Your task to perform on an android device: change the clock display to show seconds Image 0: 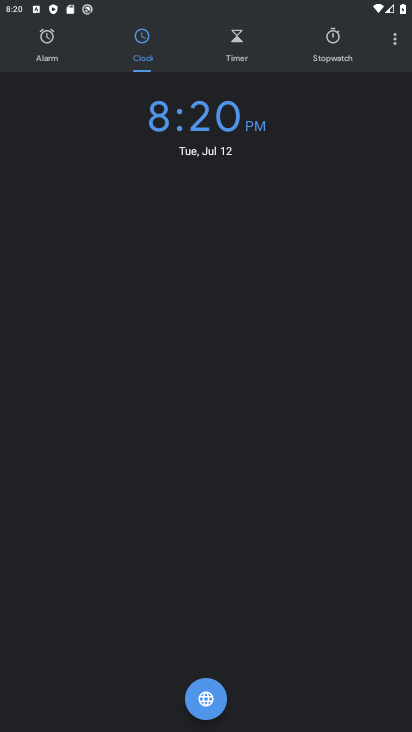
Step 0: press home button
Your task to perform on an android device: change the clock display to show seconds Image 1: 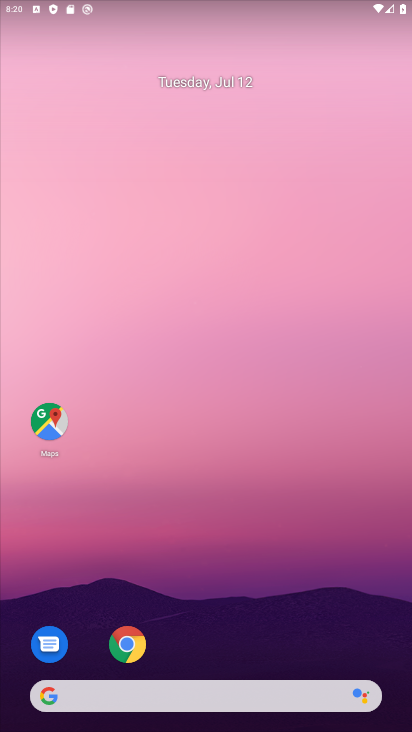
Step 1: drag from (380, 644) to (271, 141)
Your task to perform on an android device: change the clock display to show seconds Image 2: 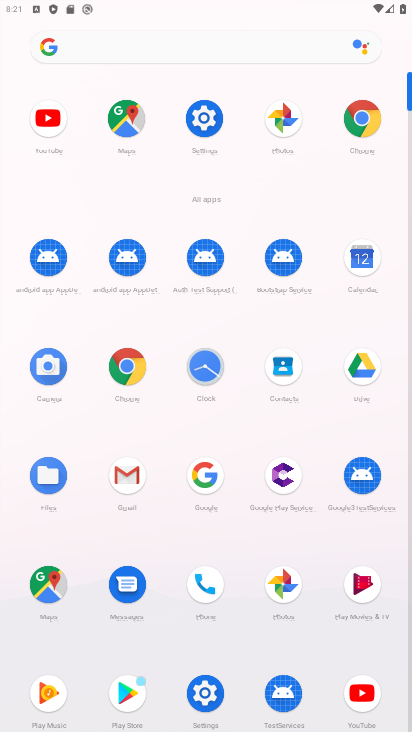
Step 2: click (204, 365)
Your task to perform on an android device: change the clock display to show seconds Image 3: 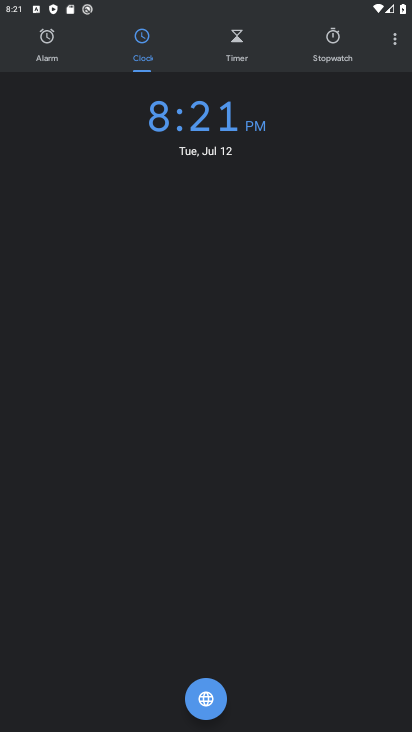
Step 3: click (395, 46)
Your task to perform on an android device: change the clock display to show seconds Image 4: 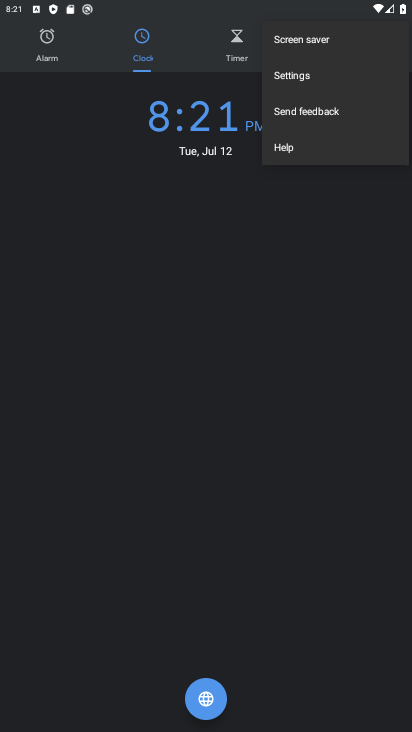
Step 4: click (287, 74)
Your task to perform on an android device: change the clock display to show seconds Image 5: 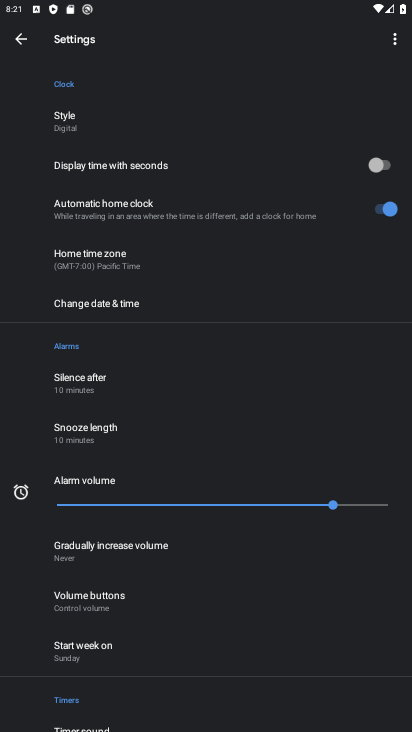
Step 5: click (386, 166)
Your task to perform on an android device: change the clock display to show seconds Image 6: 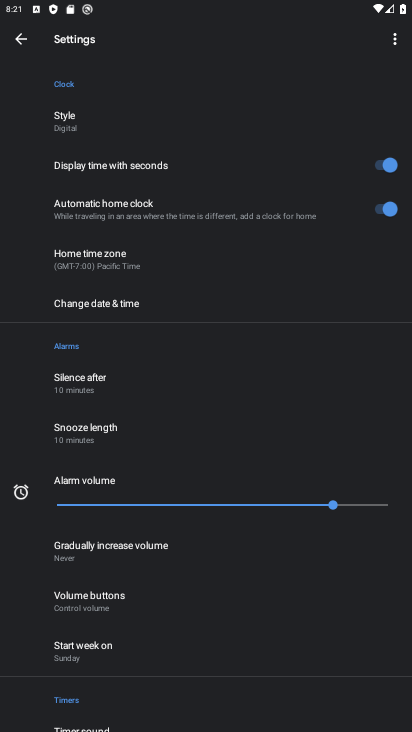
Step 6: task complete